Your task to perform on an android device: Open calendar and show me the second week of next month Image 0: 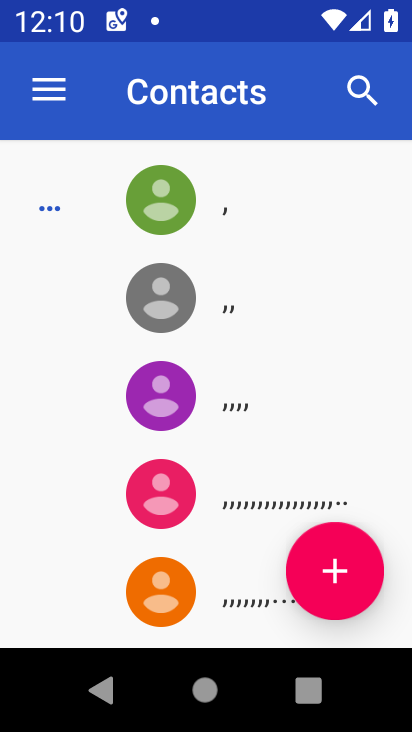
Step 0: press home button
Your task to perform on an android device: Open calendar and show me the second week of next month Image 1: 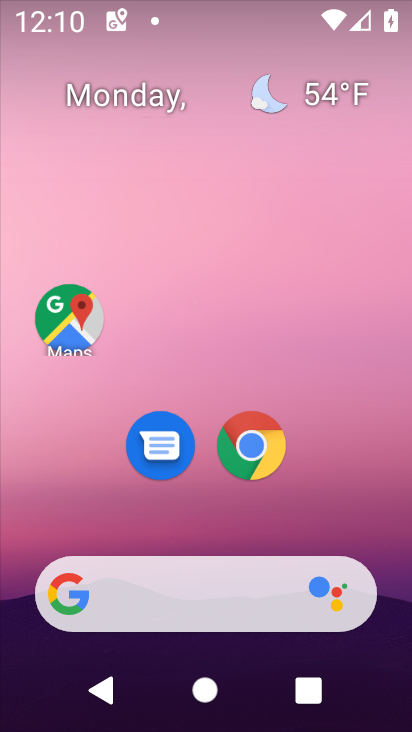
Step 1: drag from (375, 544) to (337, 130)
Your task to perform on an android device: Open calendar and show me the second week of next month Image 2: 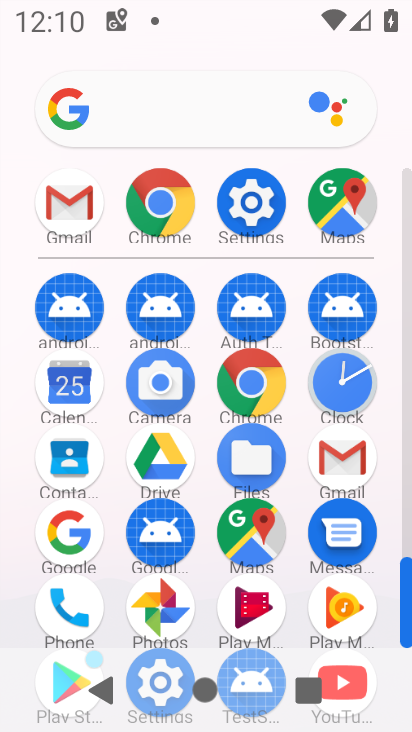
Step 2: click (76, 402)
Your task to perform on an android device: Open calendar and show me the second week of next month Image 3: 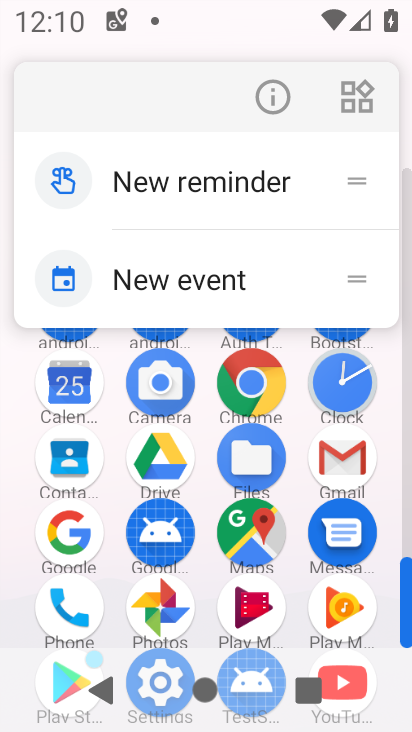
Step 3: click (76, 402)
Your task to perform on an android device: Open calendar and show me the second week of next month Image 4: 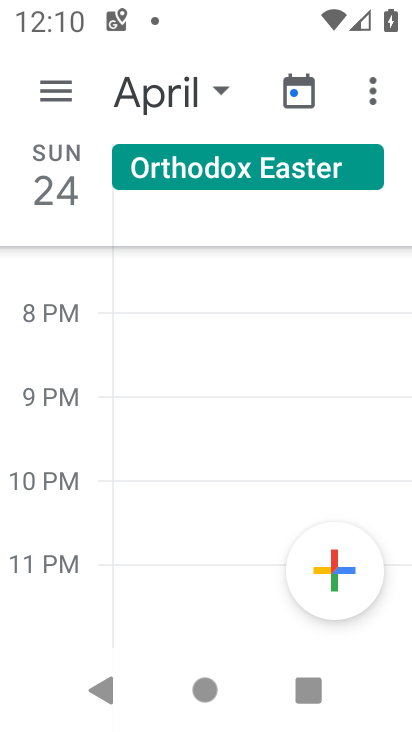
Step 4: click (187, 94)
Your task to perform on an android device: Open calendar and show me the second week of next month Image 5: 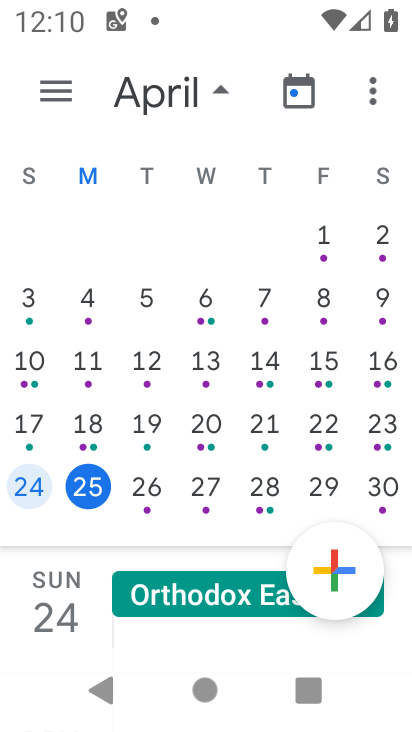
Step 5: task complete